Your task to perform on an android device: Open the calendar app, open the side menu, and click the "Day" option Image 0: 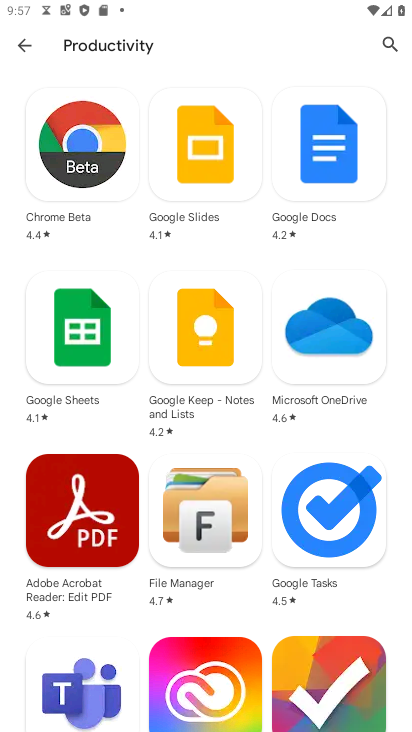
Step 0: press home button
Your task to perform on an android device: Open the calendar app, open the side menu, and click the "Day" option Image 1: 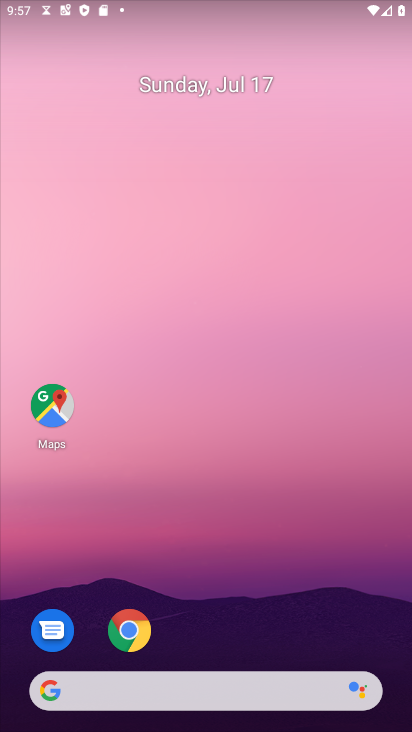
Step 1: drag from (312, 691) to (228, 6)
Your task to perform on an android device: Open the calendar app, open the side menu, and click the "Day" option Image 2: 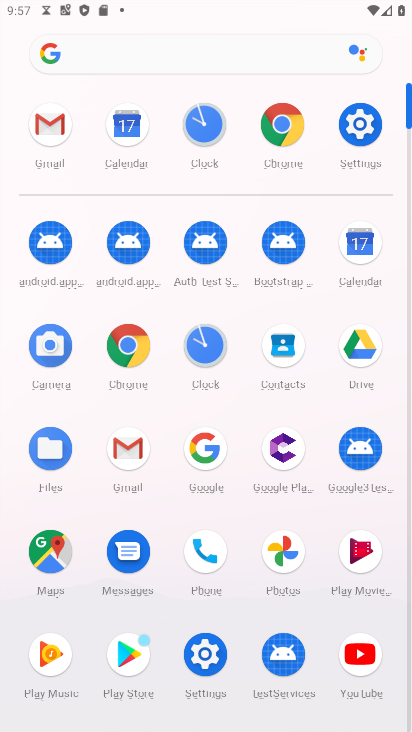
Step 2: click (367, 248)
Your task to perform on an android device: Open the calendar app, open the side menu, and click the "Day" option Image 3: 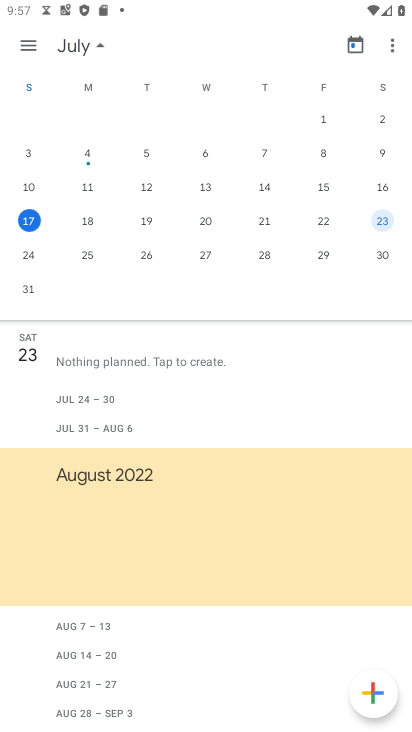
Step 3: click (20, 47)
Your task to perform on an android device: Open the calendar app, open the side menu, and click the "Day" option Image 4: 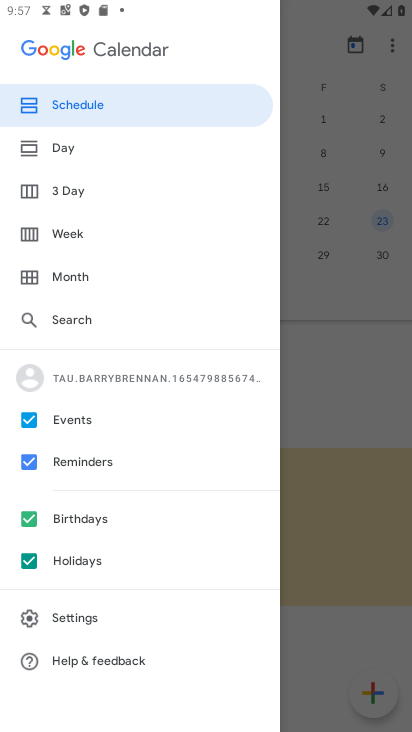
Step 4: click (95, 144)
Your task to perform on an android device: Open the calendar app, open the side menu, and click the "Day" option Image 5: 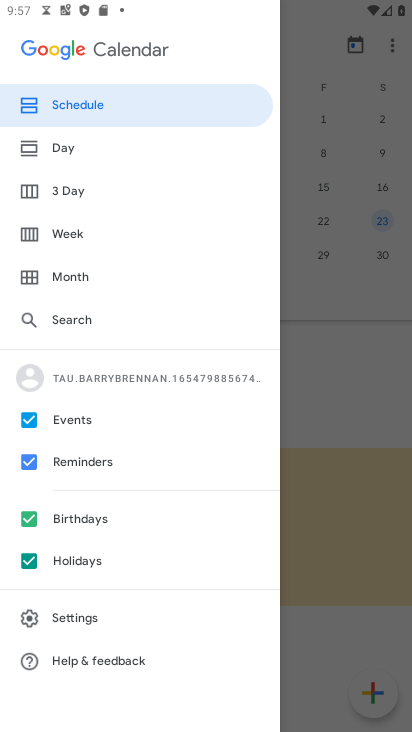
Step 5: click (74, 135)
Your task to perform on an android device: Open the calendar app, open the side menu, and click the "Day" option Image 6: 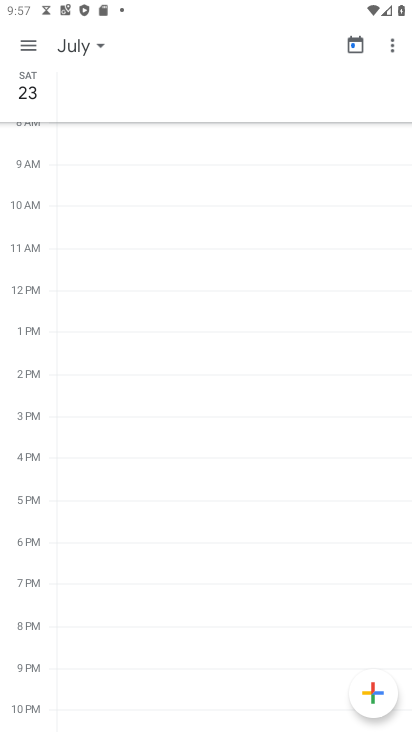
Step 6: task complete